Your task to perform on an android device: Go to eBay Image 0: 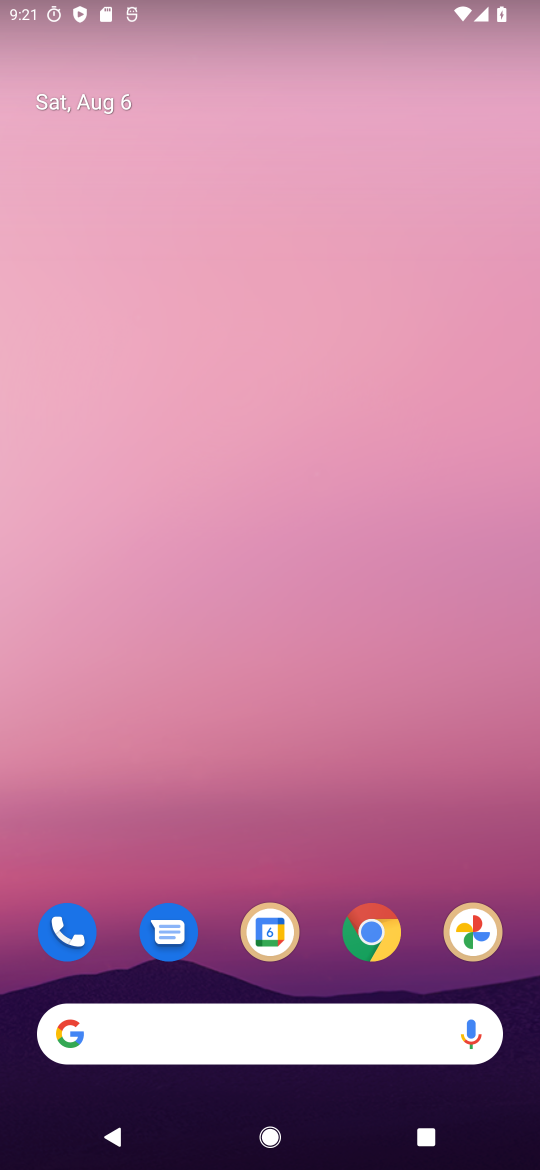
Step 0: click (371, 934)
Your task to perform on an android device: Go to eBay Image 1: 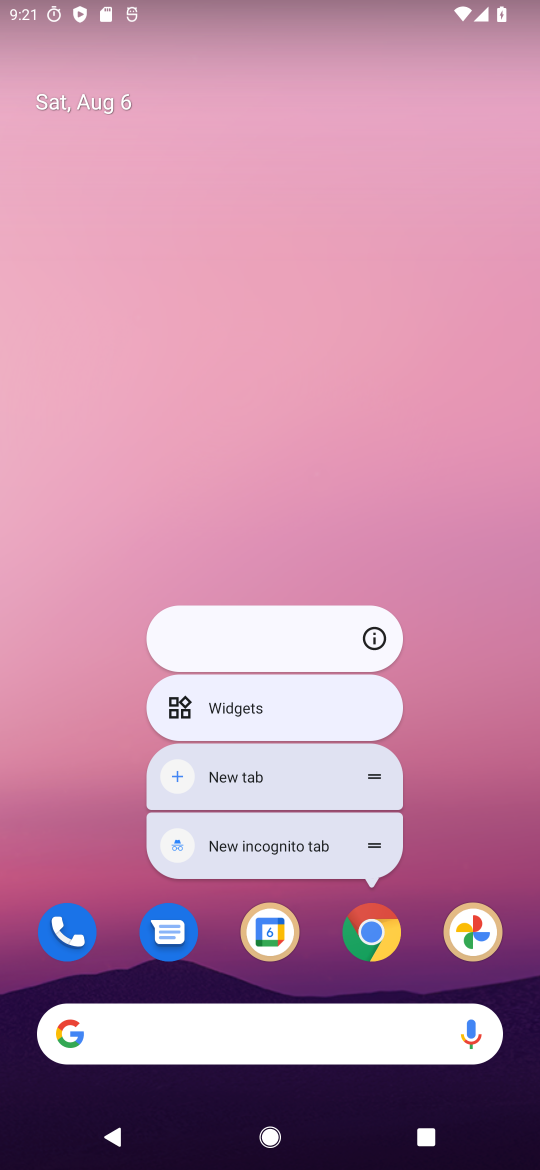
Step 1: click (371, 938)
Your task to perform on an android device: Go to eBay Image 2: 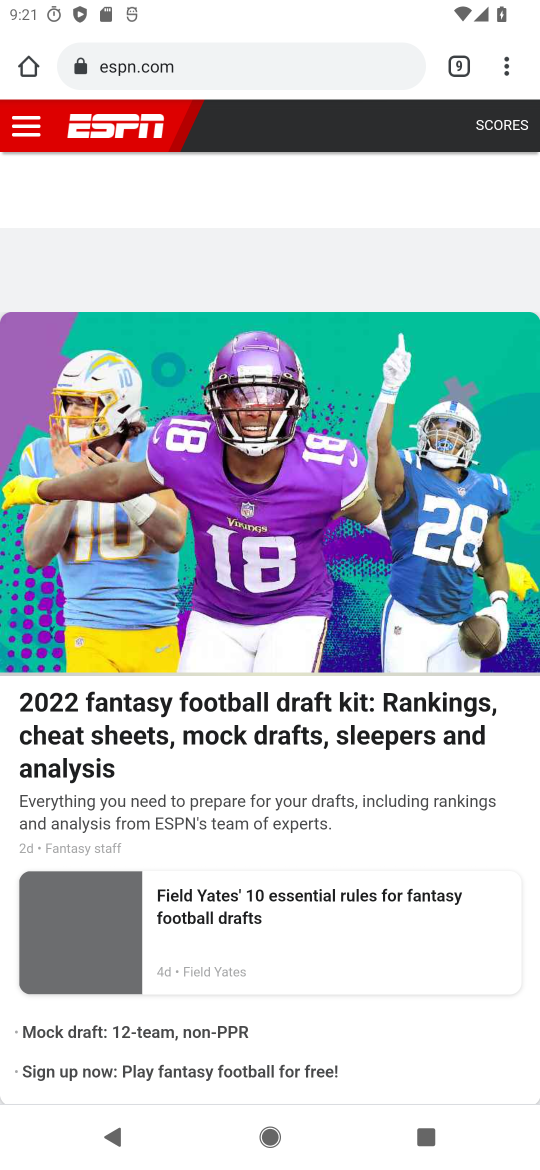
Step 2: drag from (509, 65) to (365, 200)
Your task to perform on an android device: Go to eBay Image 3: 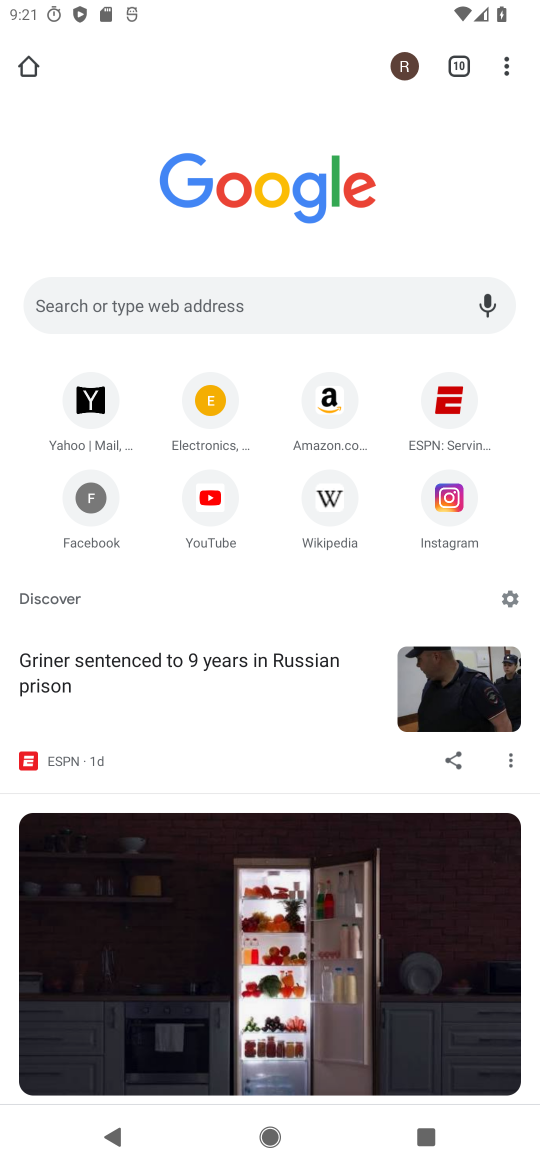
Step 3: click (213, 400)
Your task to perform on an android device: Go to eBay Image 4: 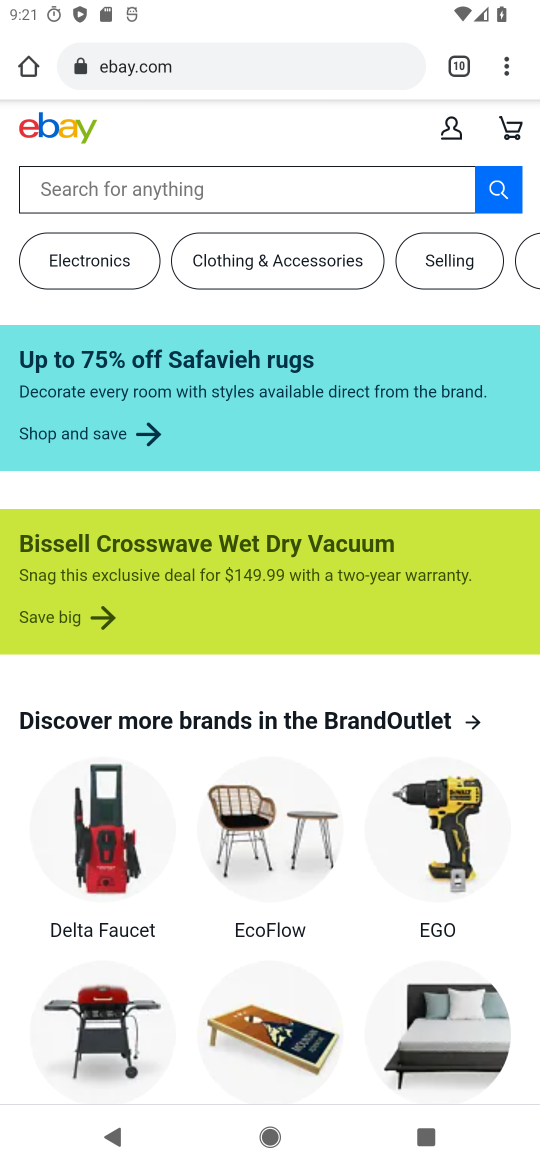
Step 4: task complete